Your task to perform on an android device: Open my contact list Image 0: 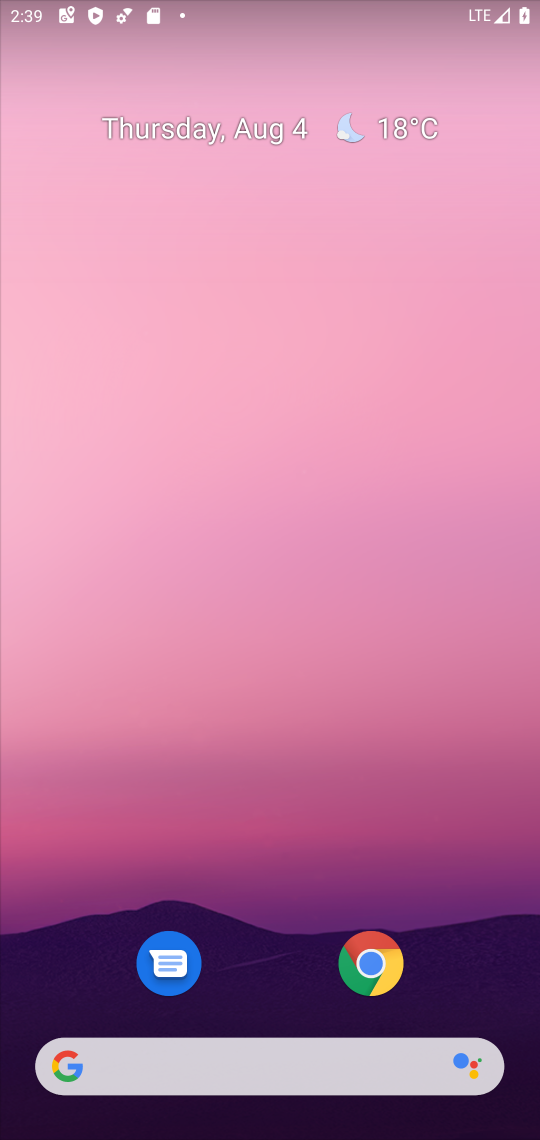
Step 0: drag from (267, 1045) to (385, 88)
Your task to perform on an android device: Open my contact list Image 1: 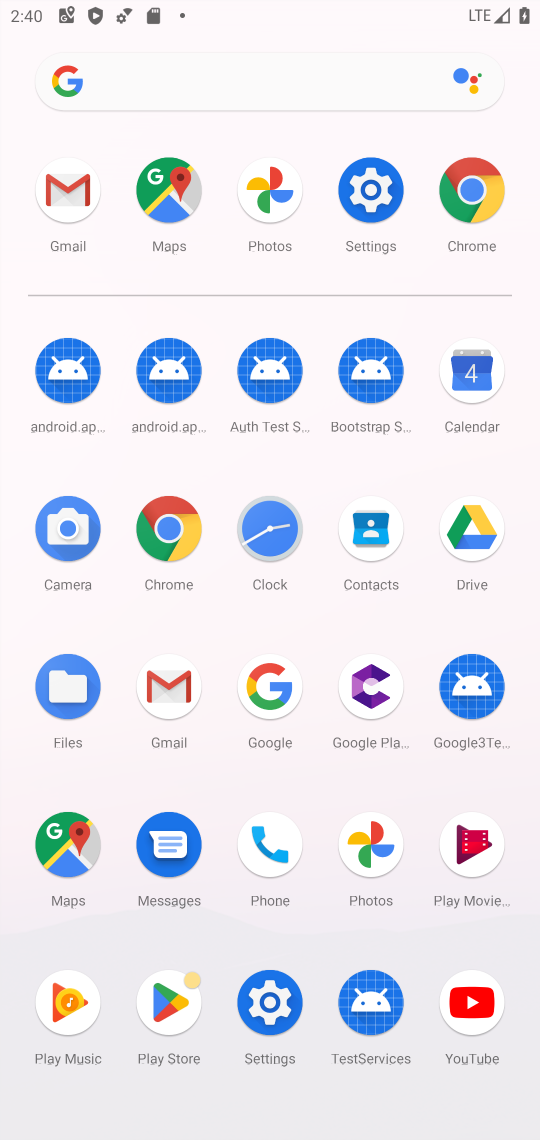
Step 1: click (368, 534)
Your task to perform on an android device: Open my contact list Image 2: 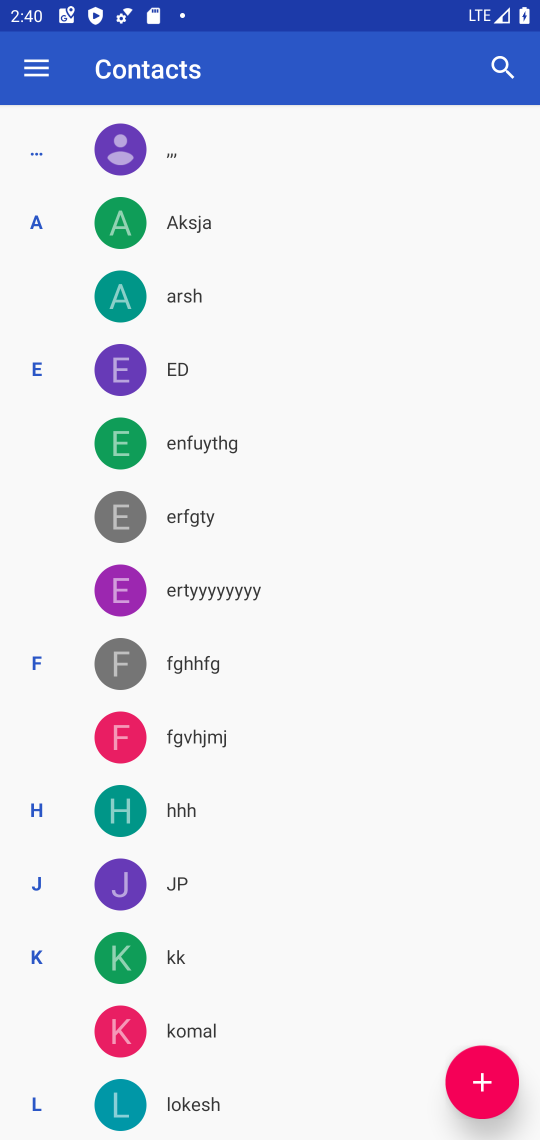
Step 2: task complete